Your task to perform on an android device: Open accessibility settings Image 0: 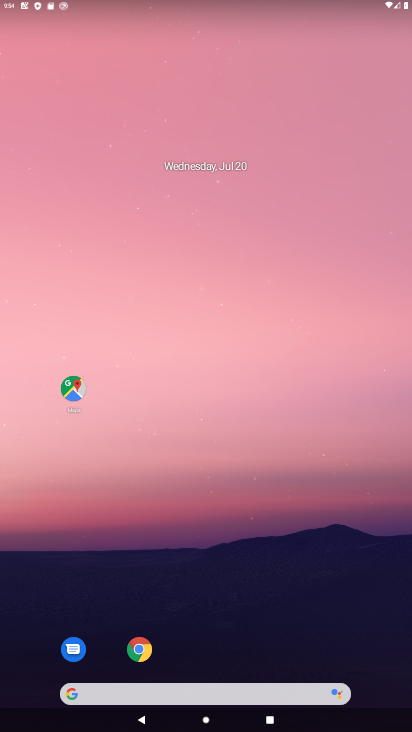
Step 0: drag from (301, 670) to (278, 23)
Your task to perform on an android device: Open accessibility settings Image 1: 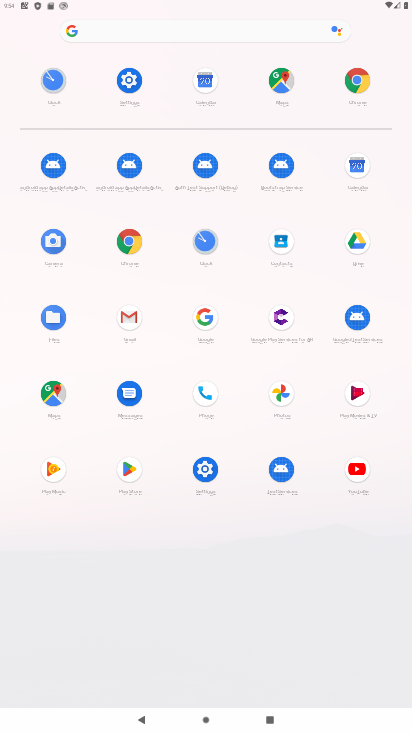
Step 1: click (147, 99)
Your task to perform on an android device: Open accessibility settings Image 2: 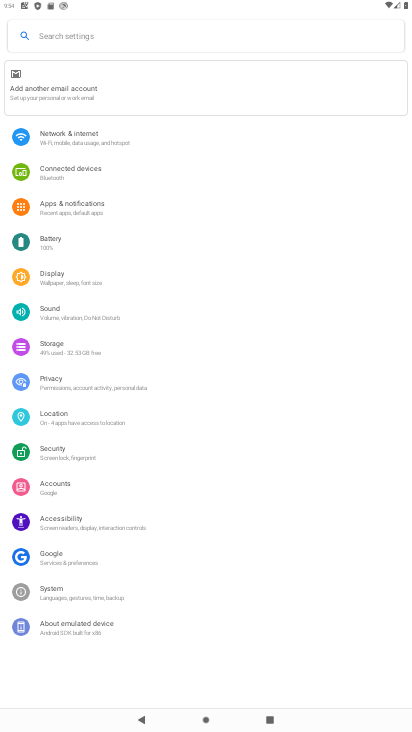
Step 2: click (94, 490)
Your task to perform on an android device: Open accessibility settings Image 3: 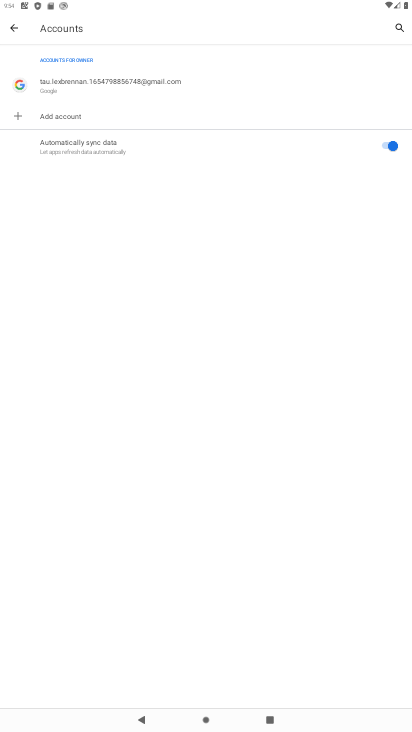
Step 3: task complete